Your task to perform on an android device: Open the web browser Image 0: 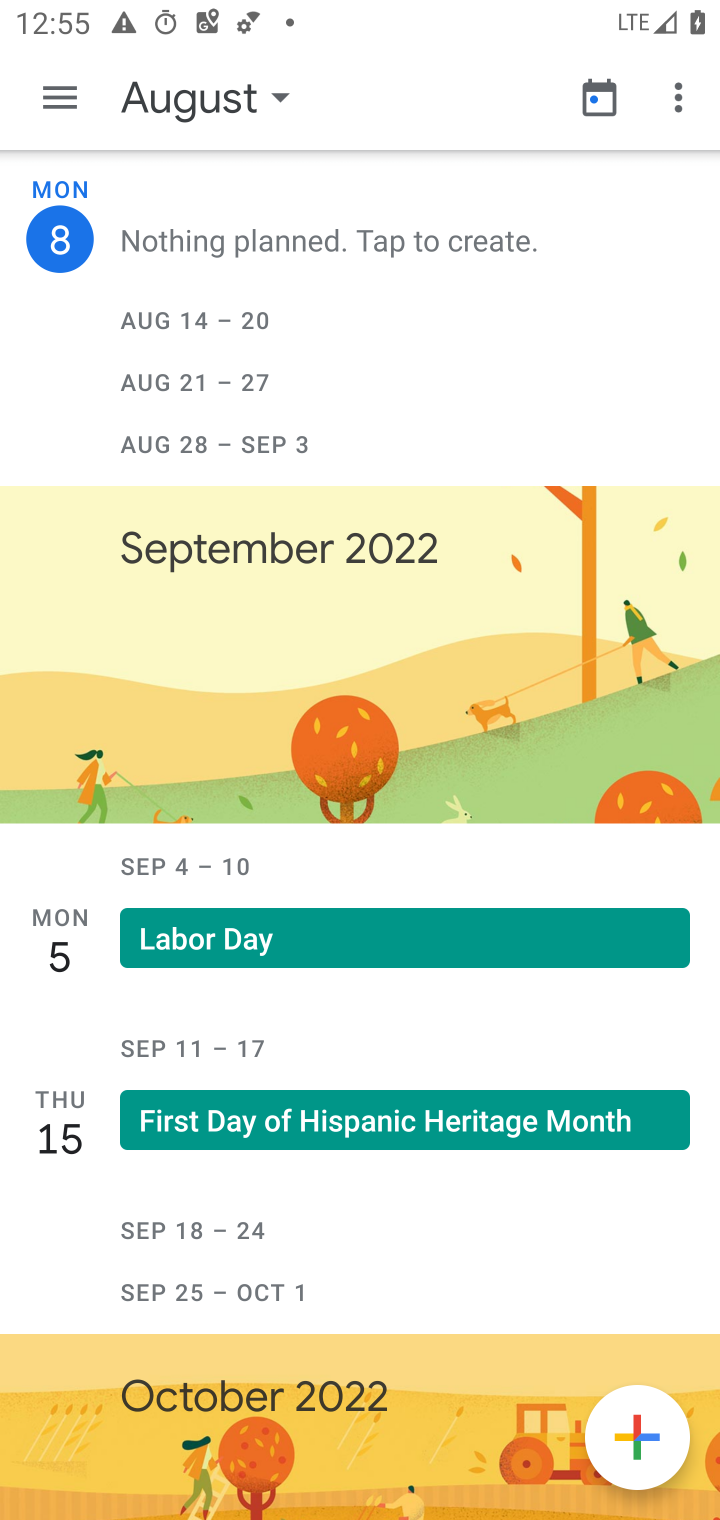
Step 0: press home button
Your task to perform on an android device: Open the web browser Image 1: 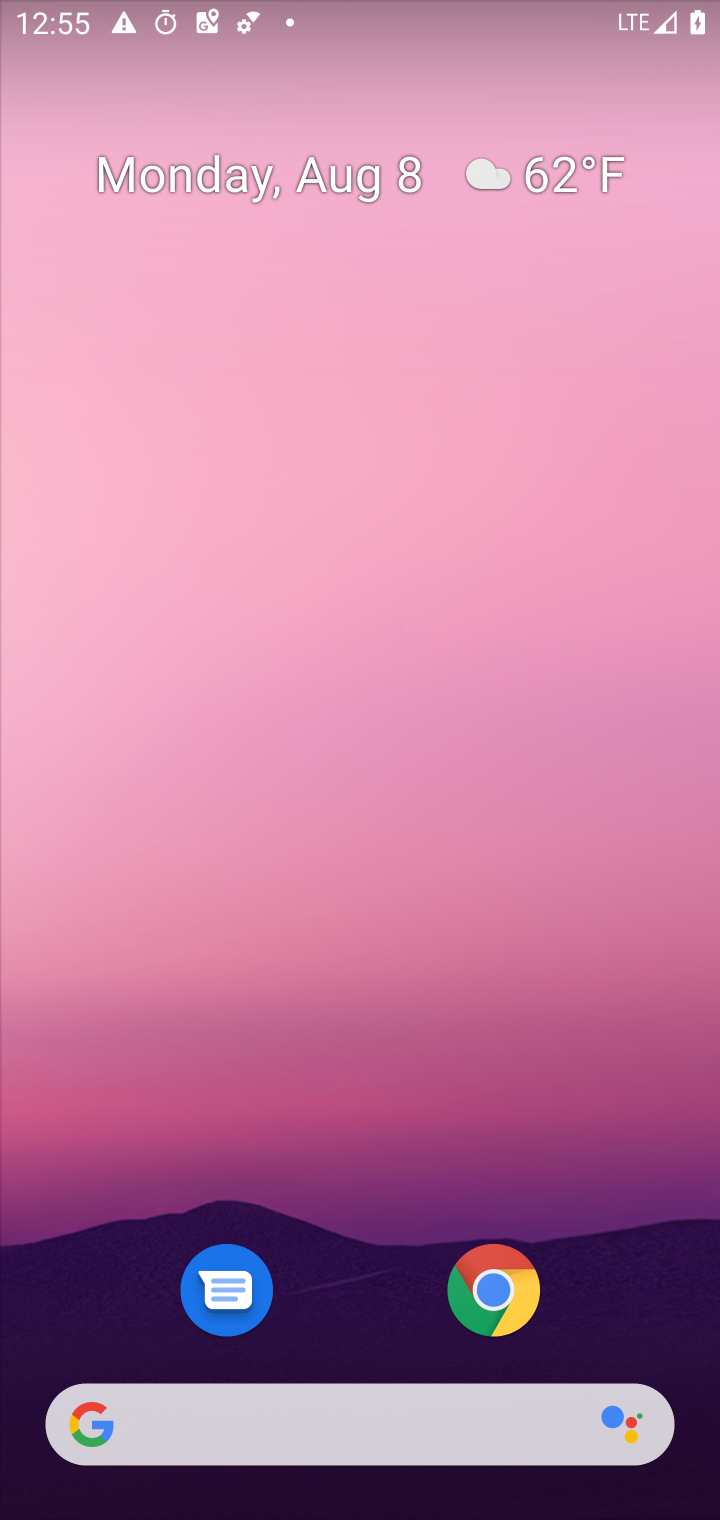
Step 1: click (465, 1321)
Your task to perform on an android device: Open the web browser Image 2: 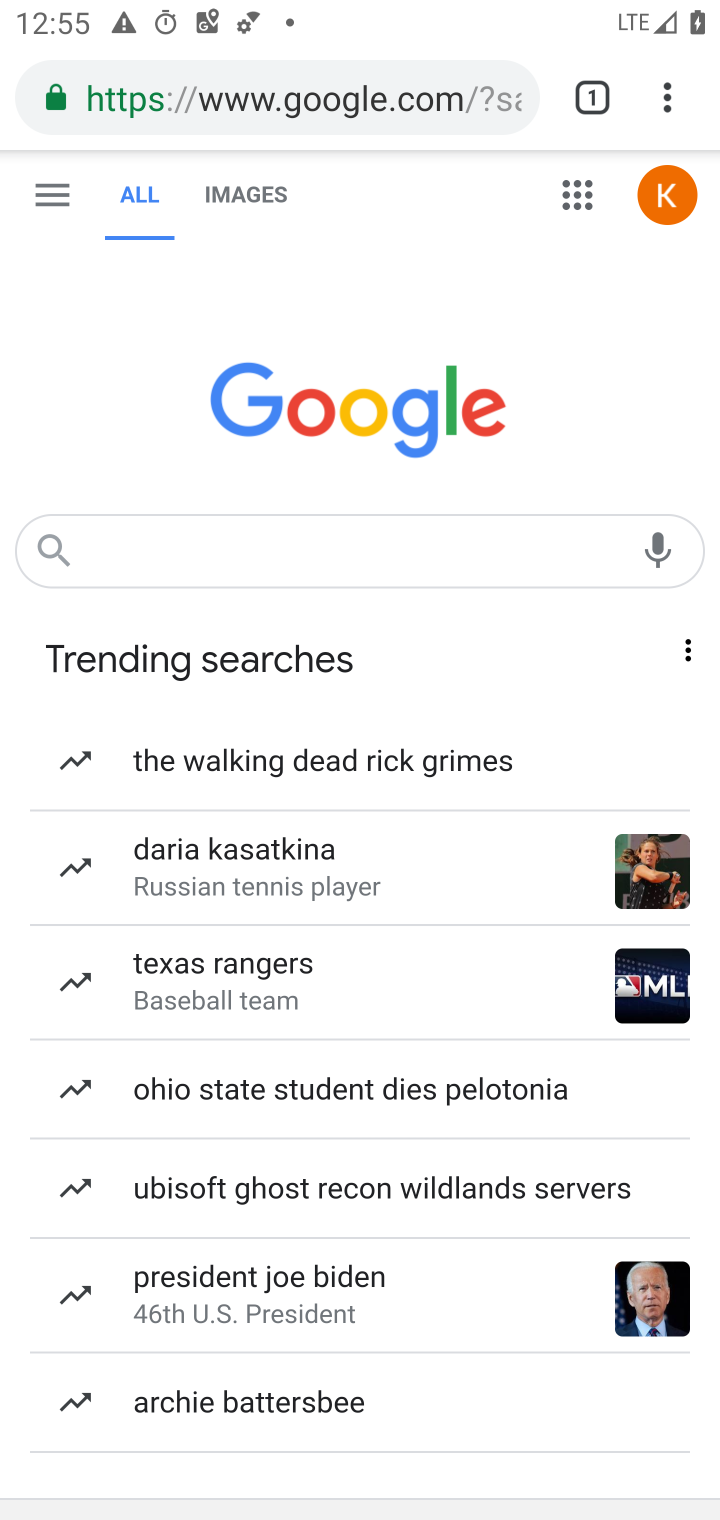
Step 2: task complete